Your task to perform on an android device: turn on sleep mode Image 0: 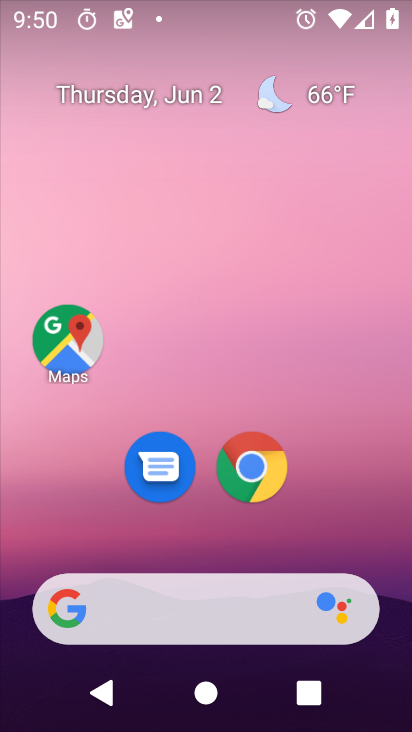
Step 0: drag from (16, 577) to (210, 125)
Your task to perform on an android device: turn on sleep mode Image 1: 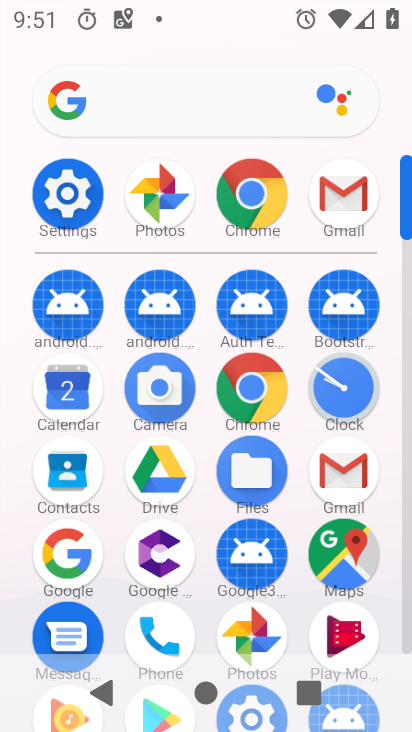
Step 1: click (79, 179)
Your task to perform on an android device: turn on sleep mode Image 2: 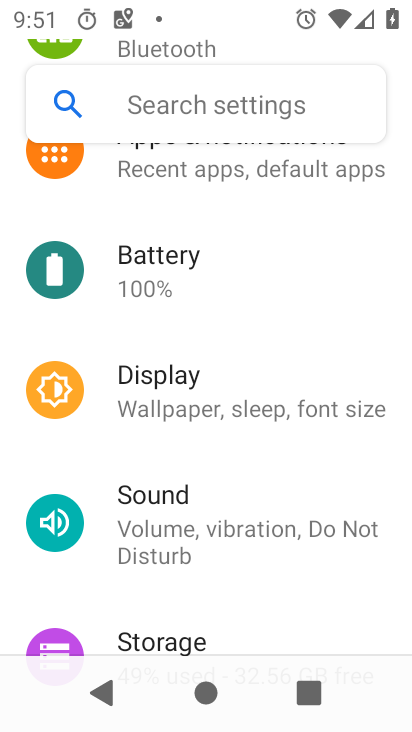
Step 2: click (194, 415)
Your task to perform on an android device: turn on sleep mode Image 3: 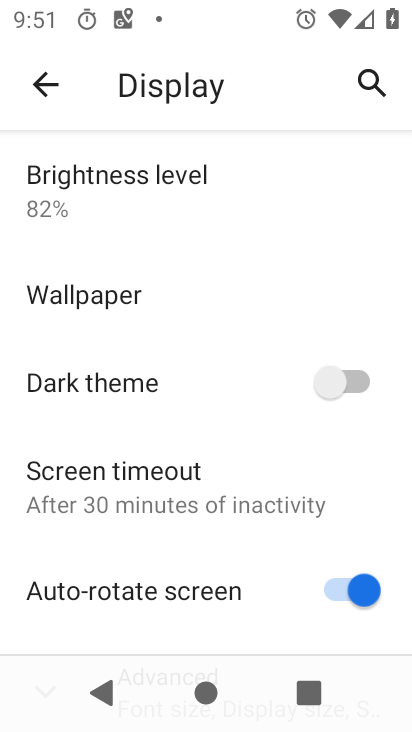
Step 3: task complete